Your task to perform on an android device: change text size in settings app Image 0: 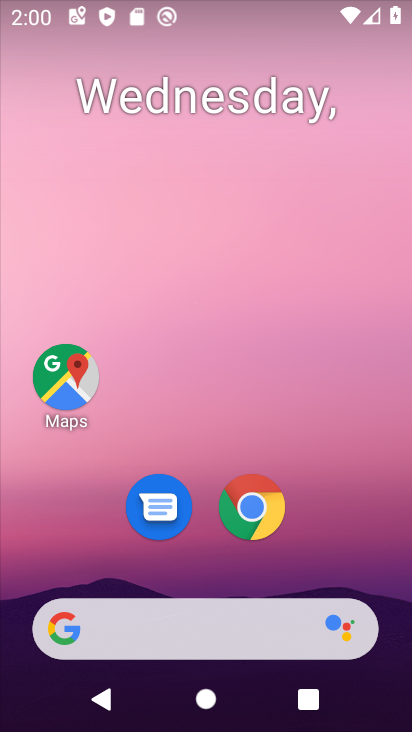
Step 0: drag from (339, 540) to (348, 197)
Your task to perform on an android device: change text size in settings app Image 1: 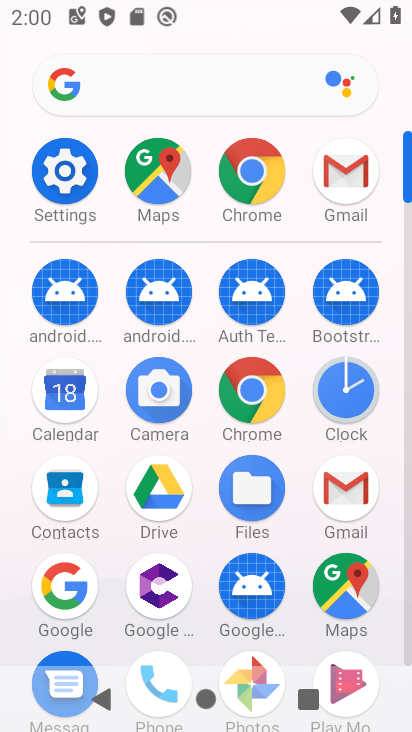
Step 1: click (72, 188)
Your task to perform on an android device: change text size in settings app Image 2: 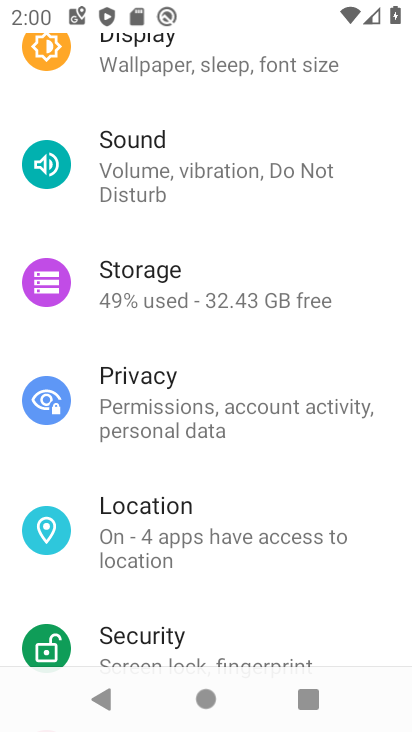
Step 2: drag from (271, 353) to (282, 558)
Your task to perform on an android device: change text size in settings app Image 3: 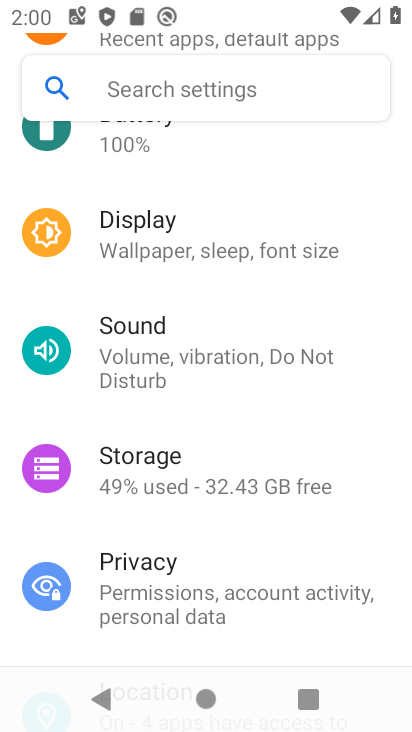
Step 3: drag from (286, 329) to (287, 588)
Your task to perform on an android device: change text size in settings app Image 4: 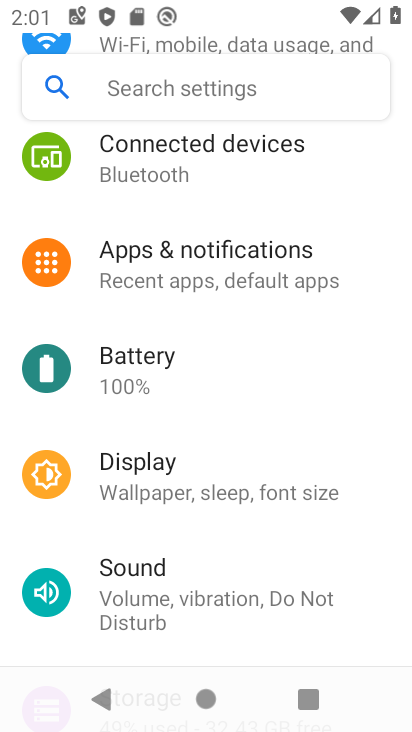
Step 4: drag from (343, 336) to (254, 557)
Your task to perform on an android device: change text size in settings app Image 5: 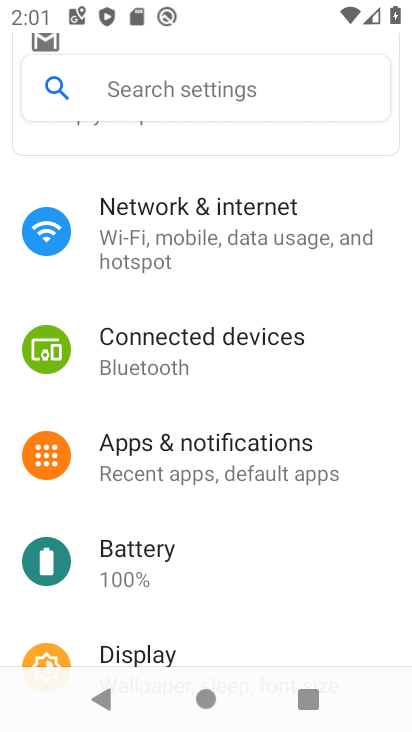
Step 5: drag from (259, 576) to (298, 272)
Your task to perform on an android device: change text size in settings app Image 6: 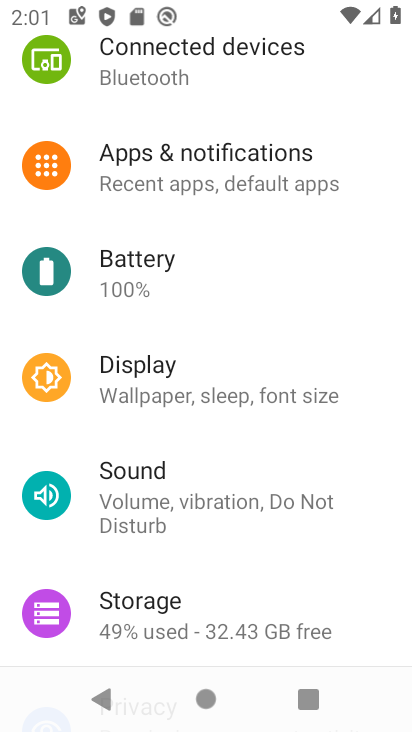
Step 6: drag from (341, 571) to (375, 198)
Your task to perform on an android device: change text size in settings app Image 7: 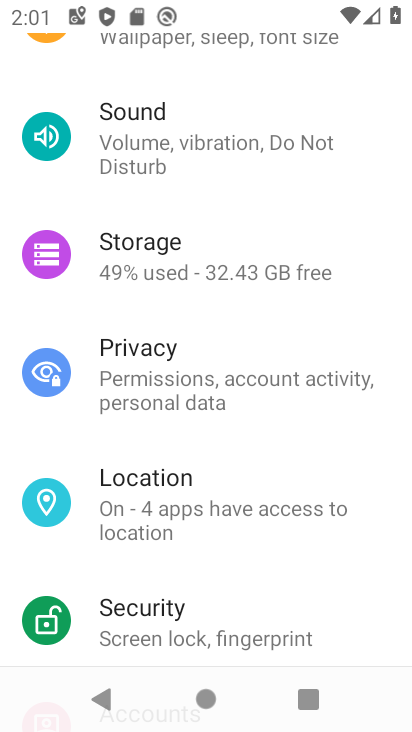
Step 7: drag from (352, 546) to (359, 247)
Your task to perform on an android device: change text size in settings app Image 8: 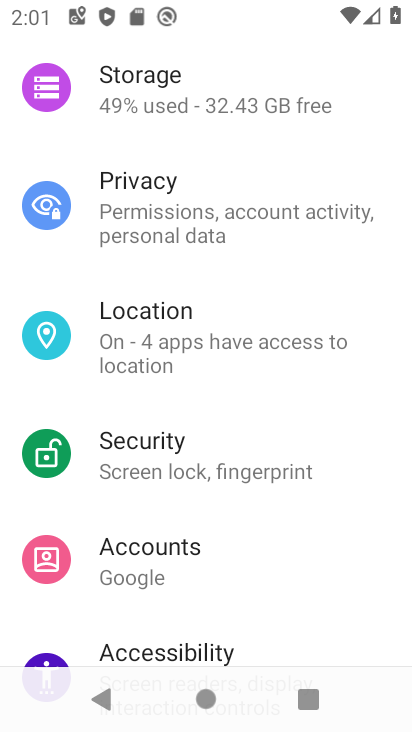
Step 8: drag from (333, 556) to (339, 293)
Your task to perform on an android device: change text size in settings app Image 9: 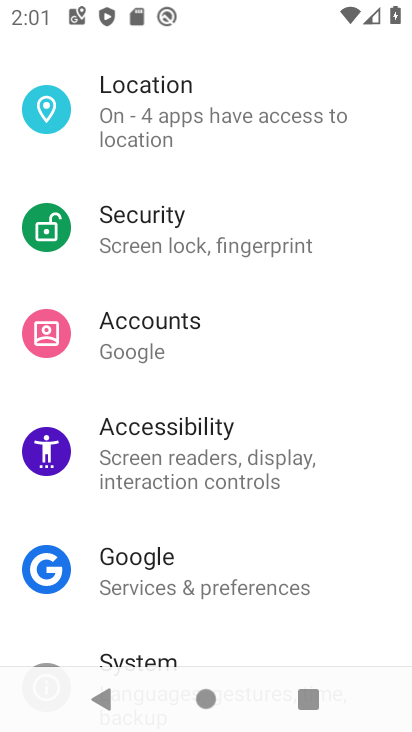
Step 9: drag from (323, 521) to (327, 286)
Your task to perform on an android device: change text size in settings app Image 10: 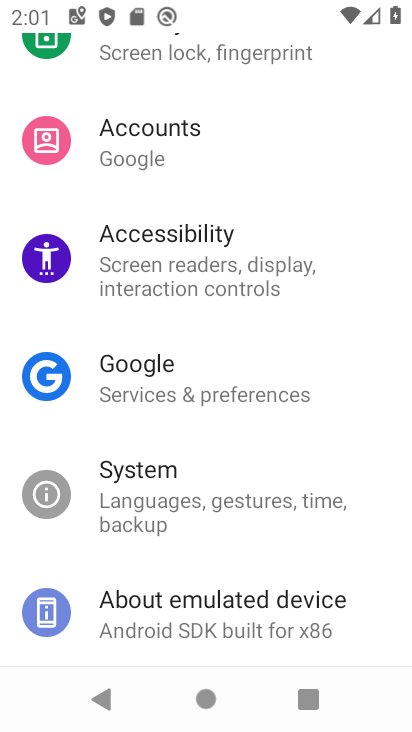
Step 10: drag from (301, 272) to (275, 583)
Your task to perform on an android device: change text size in settings app Image 11: 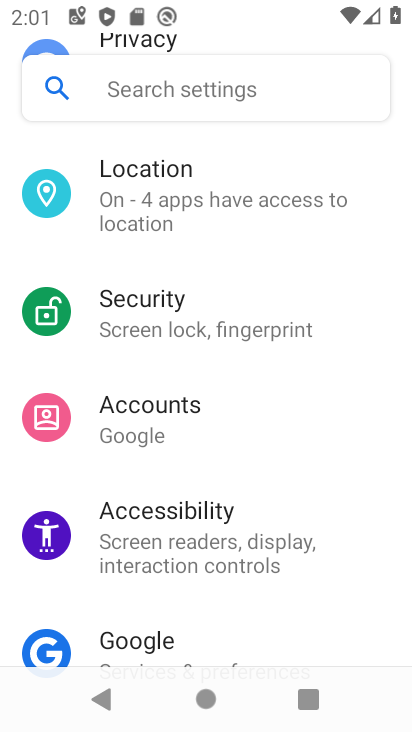
Step 11: drag from (322, 313) to (304, 546)
Your task to perform on an android device: change text size in settings app Image 12: 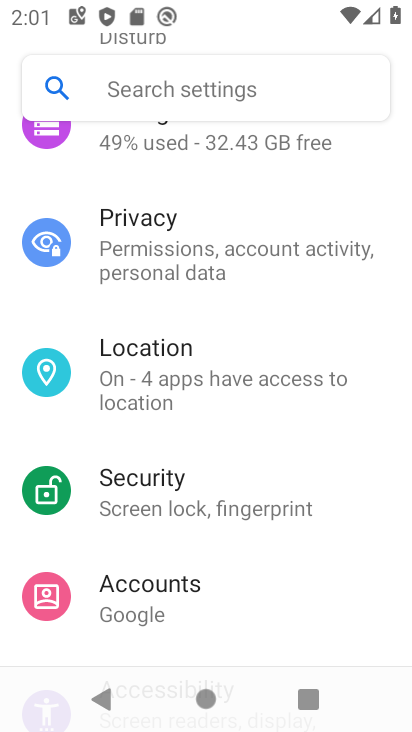
Step 12: drag from (247, 266) to (280, 542)
Your task to perform on an android device: change text size in settings app Image 13: 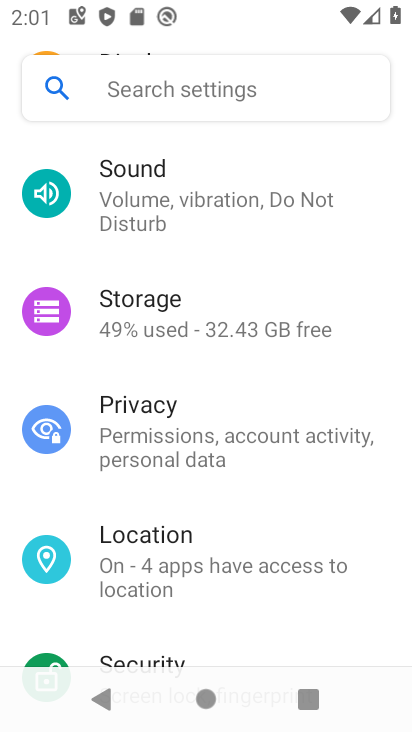
Step 13: drag from (272, 250) to (335, 569)
Your task to perform on an android device: change text size in settings app Image 14: 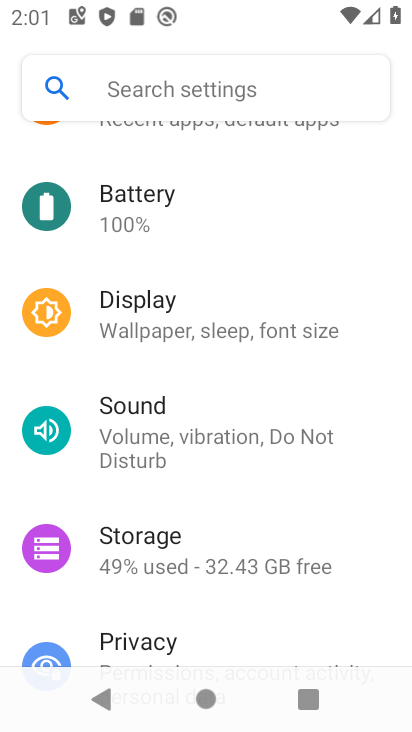
Step 14: click (225, 304)
Your task to perform on an android device: change text size in settings app Image 15: 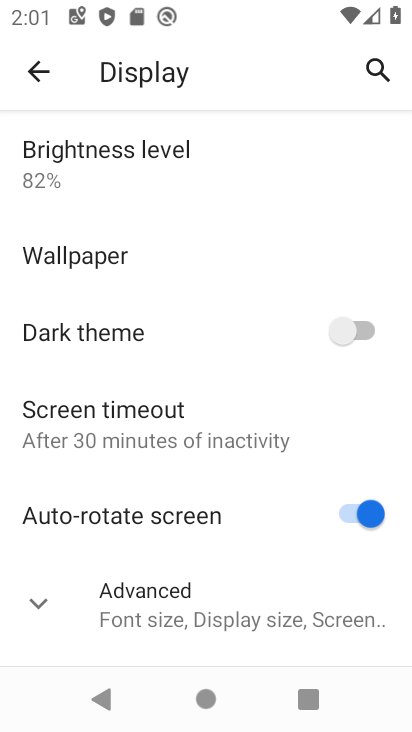
Step 15: click (210, 594)
Your task to perform on an android device: change text size in settings app Image 16: 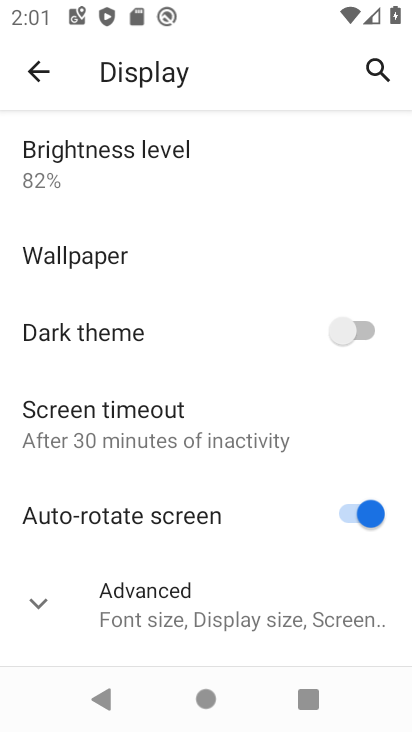
Step 16: click (204, 609)
Your task to perform on an android device: change text size in settings app Image 17: 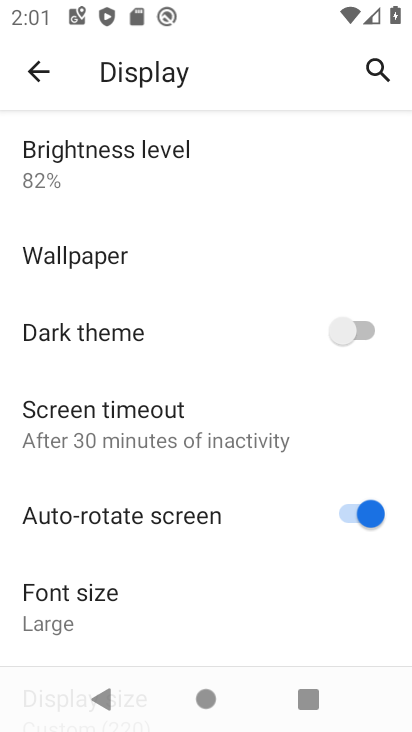
Step 17: click (104, 604)
Your task to perform on an android device: change text size in settings app Image 18: 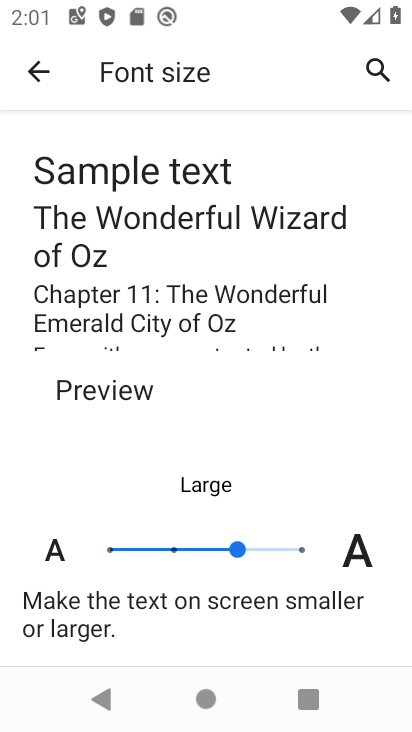
Step 18: click (107, 551)
Your task to perform on an android device: change text size in settings app Image 19: 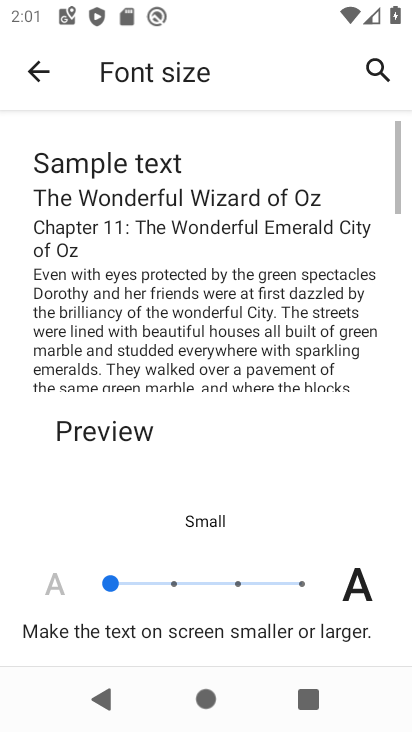
Step 19: task complete